Your task to perform on an android device: manage bookmarks in the chrome app Image 0: 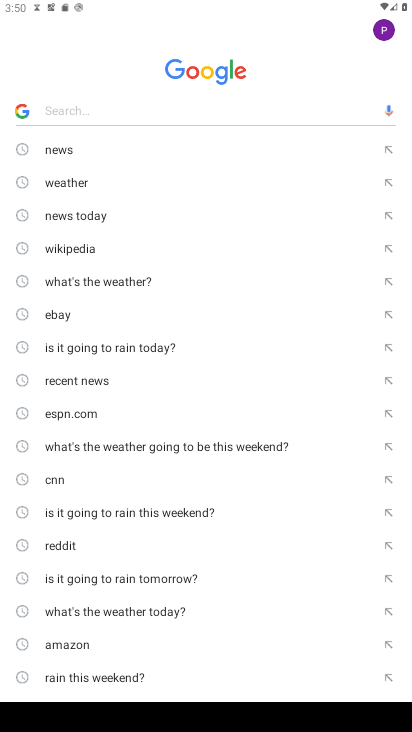
Step 0: press back button
Your task to perform on an android device: manage bookmarks in the chrome app Image 1: 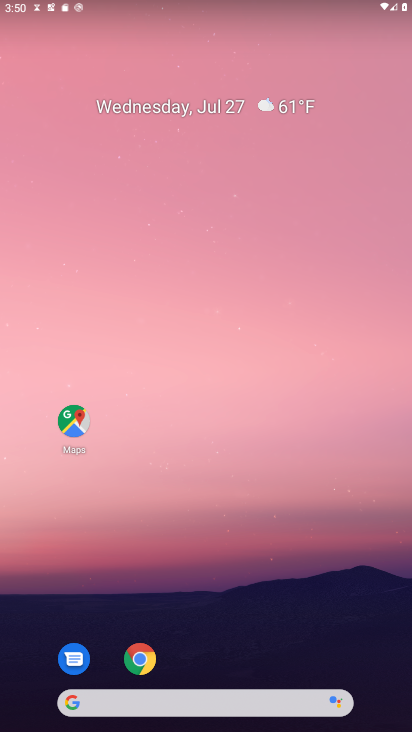
Step 1: drag from (134, 651) to (191, 651)
Your task to perform on an android device: manage bookmarks in the chrome app Image 2: 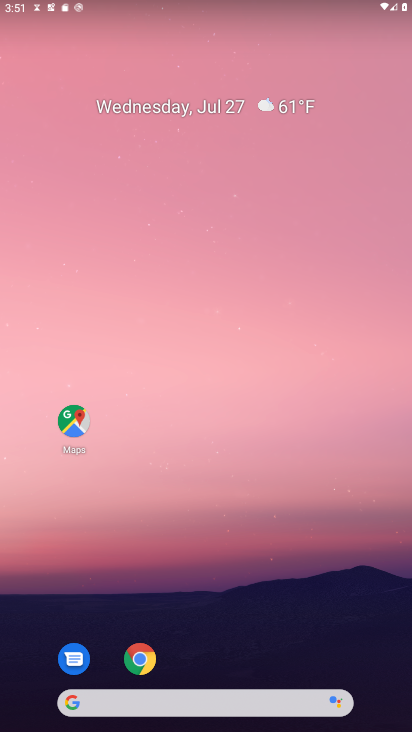
Step 2: click (138, 663)
Your task to perform on an android device: manage bookmarks in the chrome app Image 3: 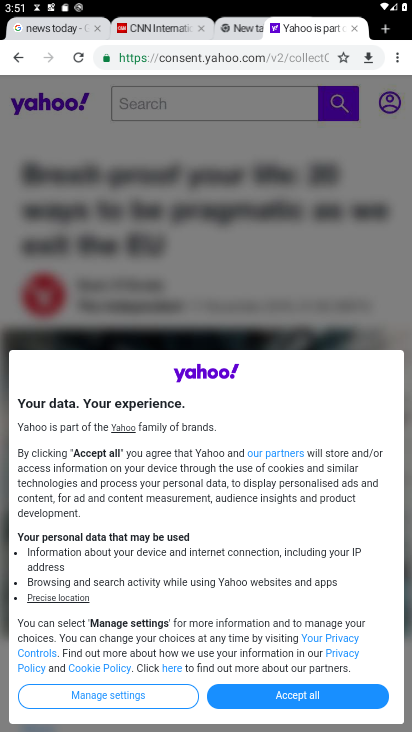
Step 3: drag from (404, 61) to (292, 110)
Your task to perform on an android device: manage bookmarks in the chrome app Image 4: 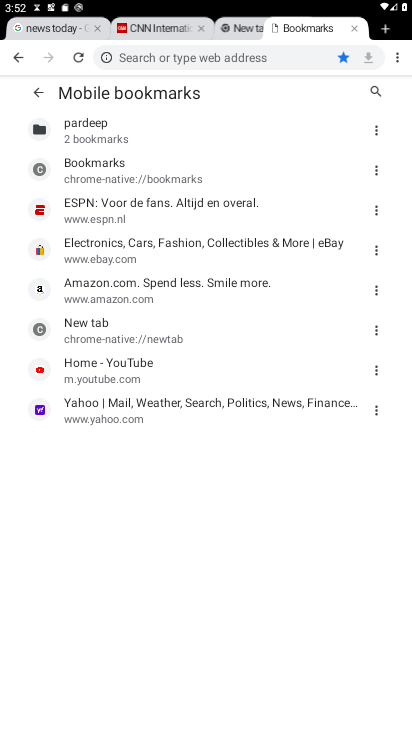
Step 4: click (375, 205)
Your task to perform on an android device: manage bookmarks in the chrome app Image 5: 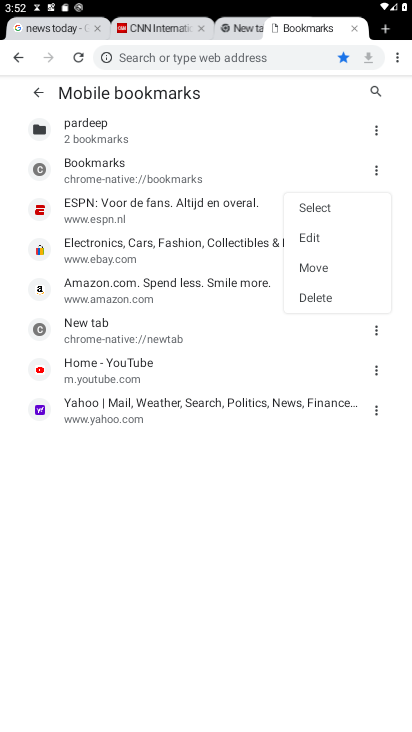
Step 5: click (320, 297)
Your task to perform on an android device: manage bookmarks in the chrome app Image 6: 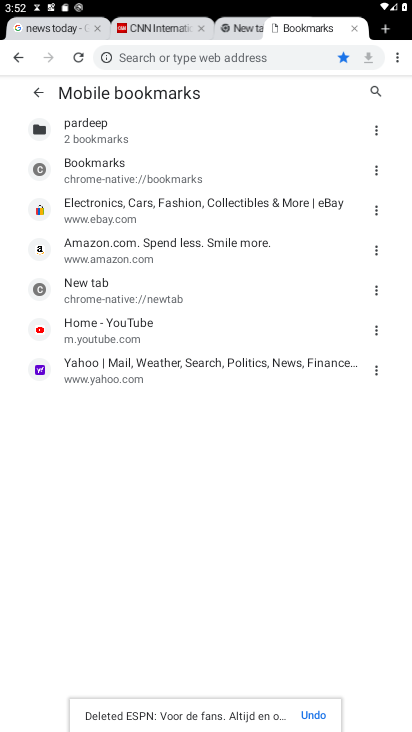
Step 6: task complete